Your task to perform on an android device: toggle translation in the chrome app Image 0: 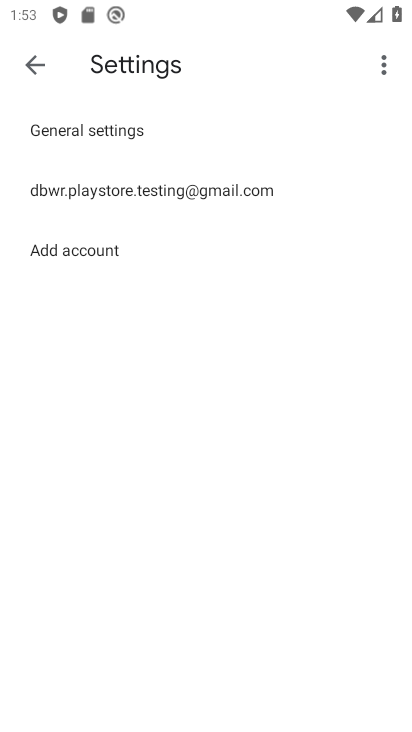
Step 0: press home button
Your task to perform on an android device: toggle translation in the chrome app Image 1: 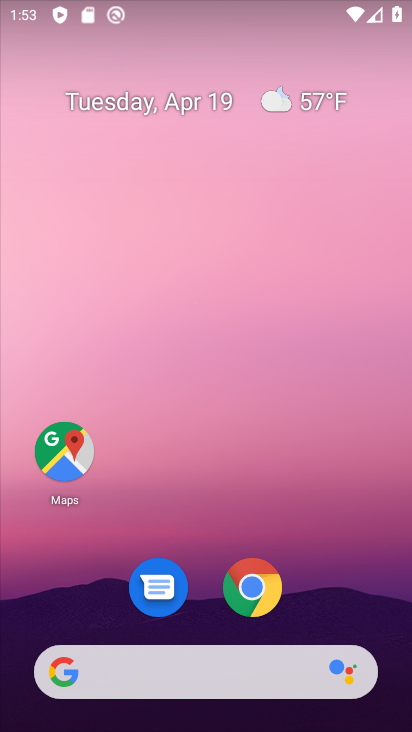
Step 1: click (231, 599)
Your task to perform on an android device: toggle translation in the chrome app Image 2: 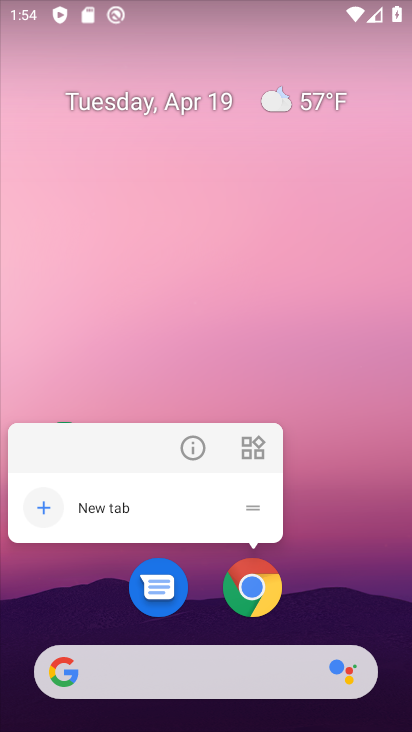
Step 2: click (239, 607)
Your task to perform on an android device: toggle translation in the chrome app Image 3: 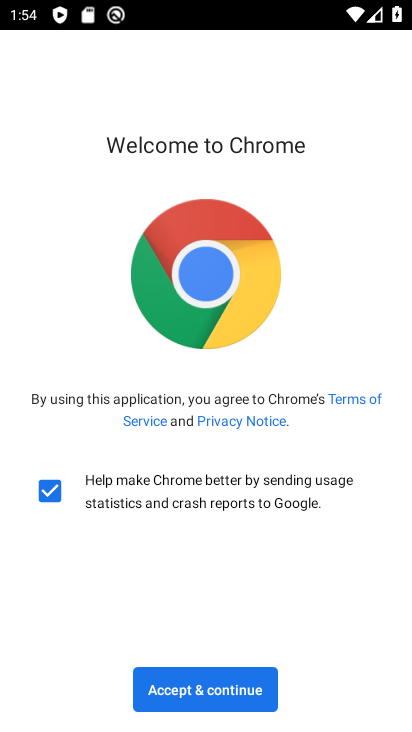
Step 3: click (248, 676)
Your task to perform on an android device: toggle translation in the chrome app Image 4: 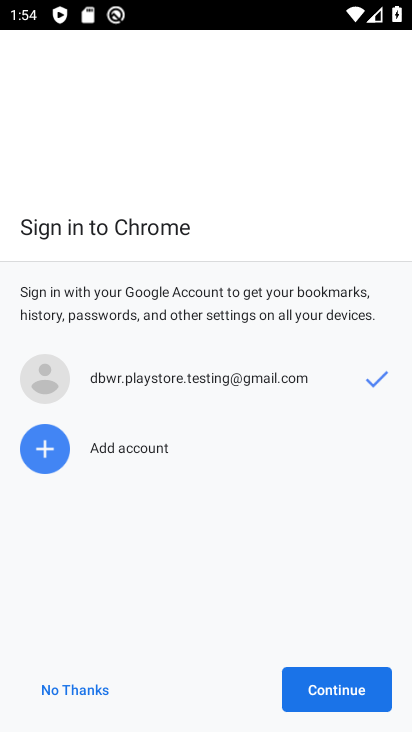
Step 4: click (307, 689)
Your task to perform on an android device: toggle translation in the chrome app Image 5: 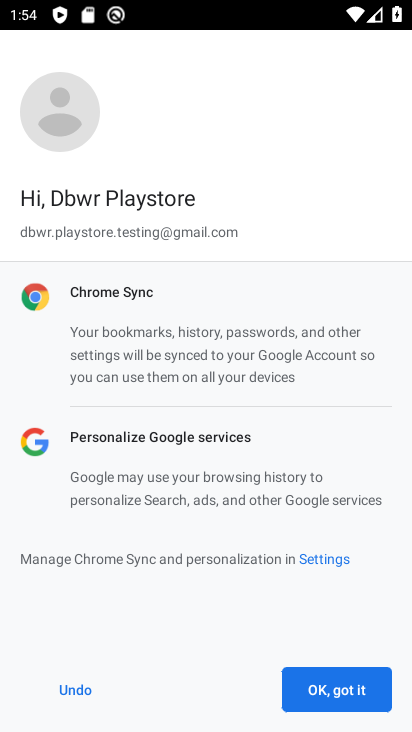
Step 5: click (308, 690)
Your task to perform on an android device: toggle translation in the chrome app Image 6: 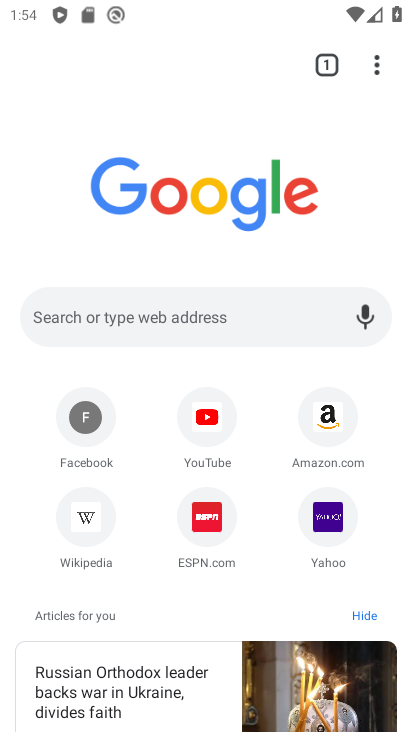
Step 6: click (377, 71)
Your task to perform on an android device: toggle translation in the chrome app Image 7: 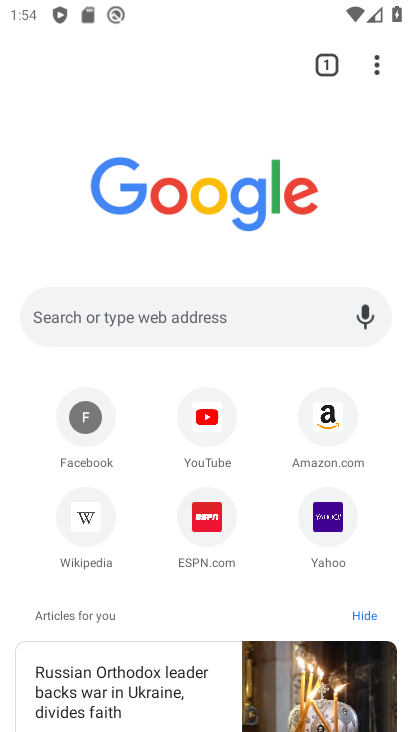
Step 7: click (377, 72)
Your task to perform on an android device: toggle translation in the chrome app Image 8: 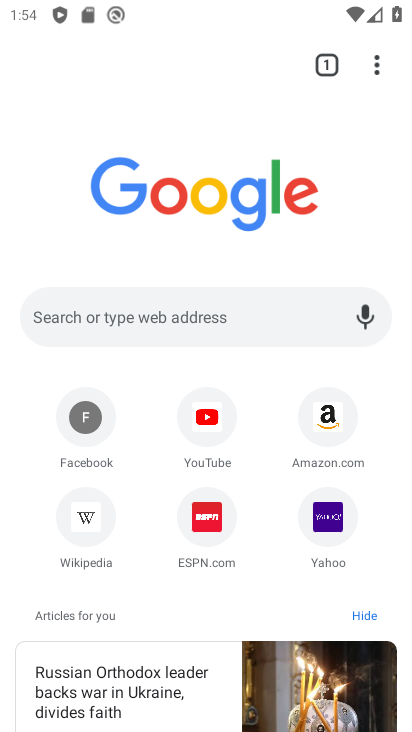
Step 8: click (379, 62)
Your task to perform on an android device: toggle translation in the chrome app Image 9: 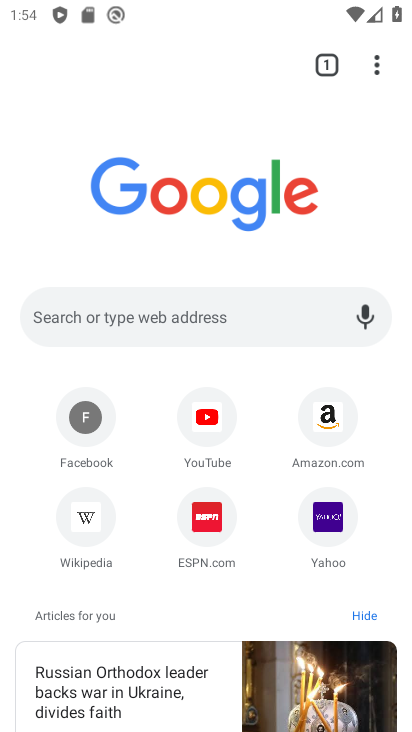
Step 9: drag from (379, 62) to (139, 543)
Your task to perform on an android device: toggle translation in the chrome app Image 10: 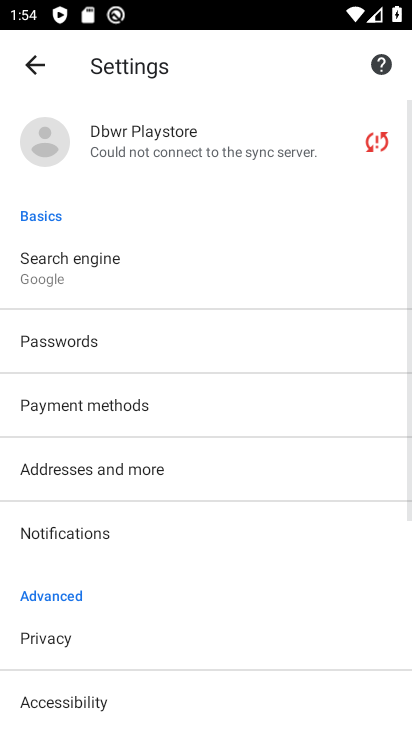
Step 10: drag from (170, 603) to (189, 302)
Your task to perform on an android device: toggle translation in the chrome app Image 11: 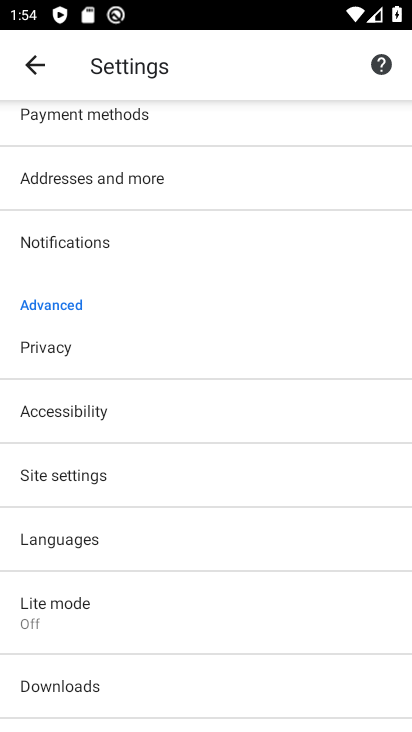
Step 11: click (116, 540)
Your task to perform on an android device: toggle translation in the chrome app Image 12: 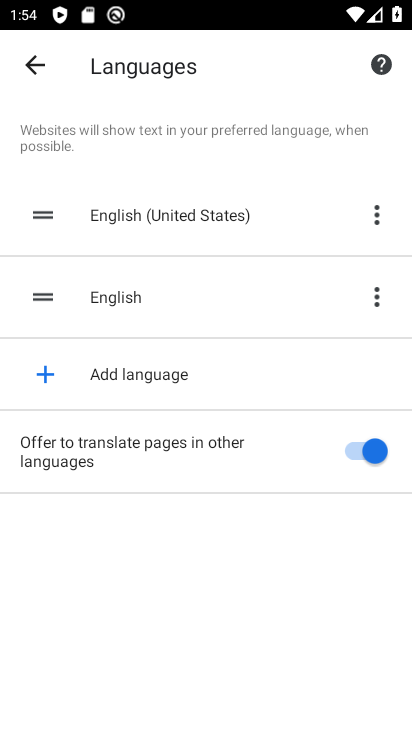
Step 12: click (357, 450)
Your task to perform on an android device: toggle translation in the chrome app Image 13: 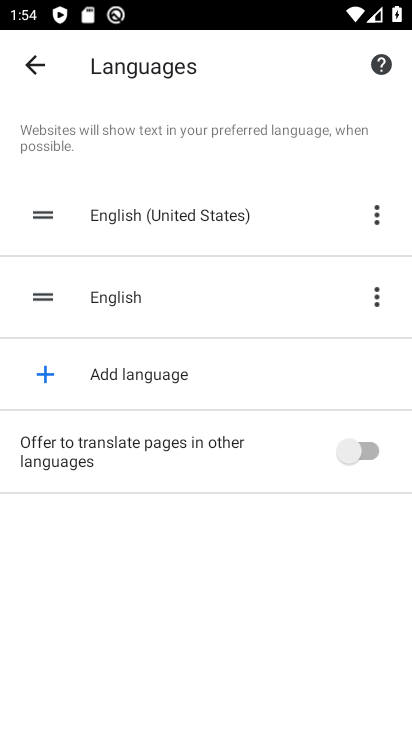
Step 13: task complete